Your task to perform on an android device: toggle show notifications on the lock screen Image 0: 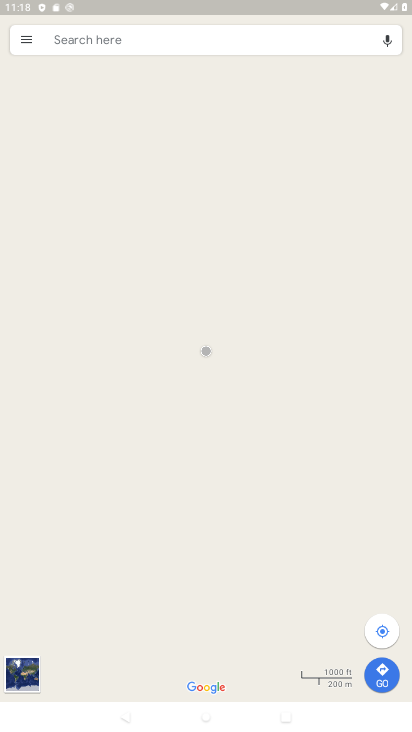
Step 0: press home button
Your task to perform on an android device: toggle show notifications on the lock screen Image 1: 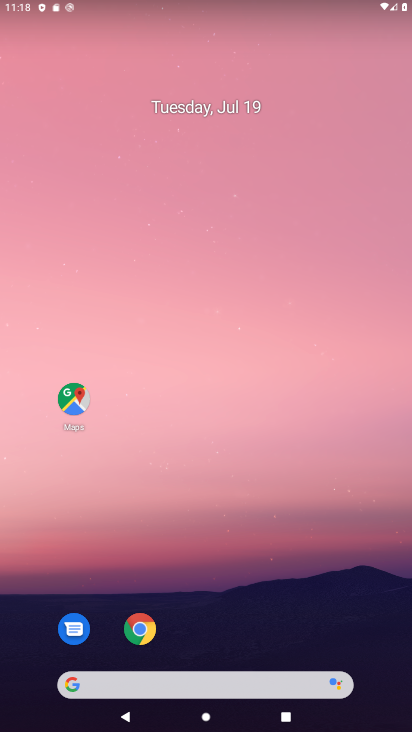
Step 1: drag from (273, 501) to (383, 29)
Your task to perform on an android device: toggle show notifications on the lock screen Image 2: 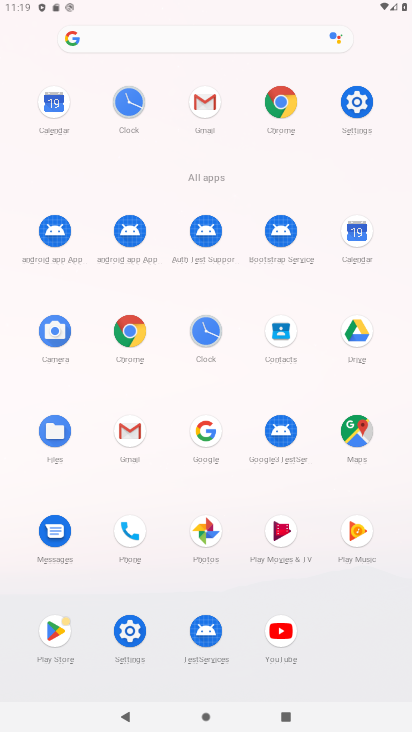
Step 2: click (371, 203)
Your task to perform on an android device: toggle show notifications on the lock screen Image 3: 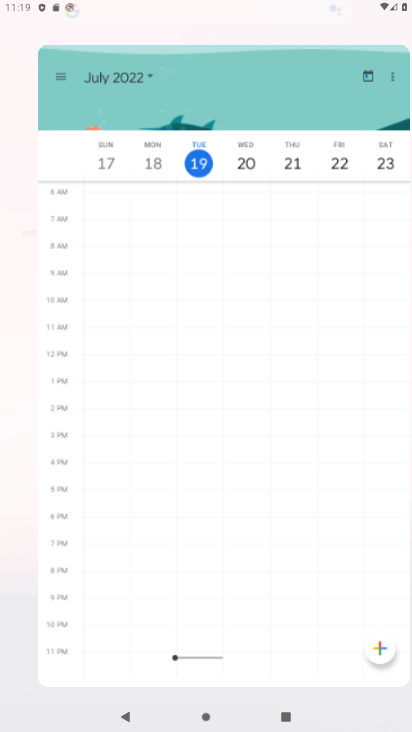
Step 3: click (361, 106)
Your task to perform on an android device: toggle show notifications on the lock screen Image 4: 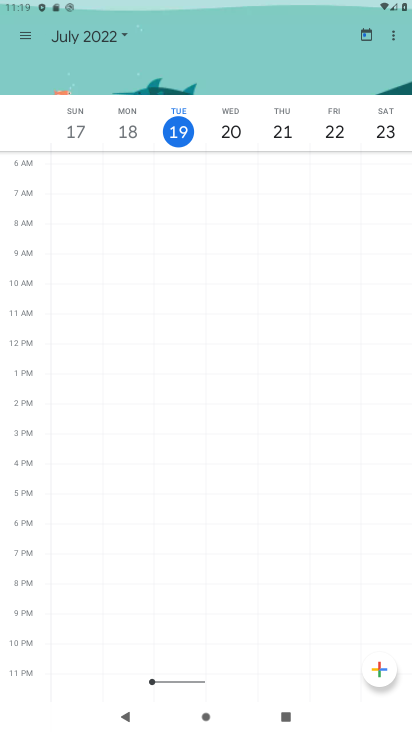
Step 4: press home button
Your task to perform on an android device: toggle show notifications on the lock screen Image 5: 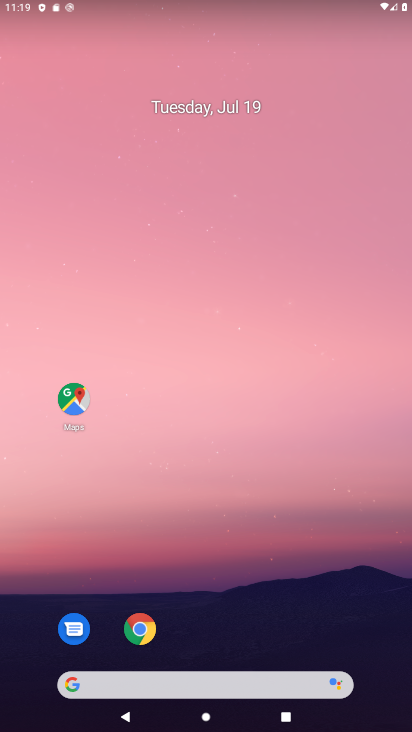
Step 5: drag from (238, 522) to (253, 35)
Your task to perform on an android device: toggle show notifications on the lock screen Image 6: 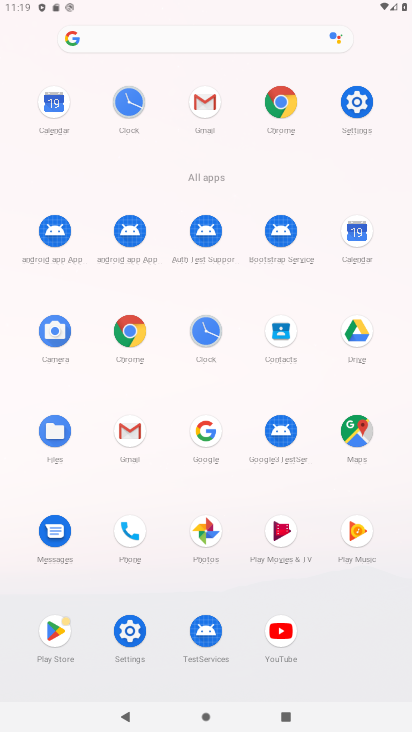
Step 6: click (354, 109)
Your task to perform on an android device: toggle show notifications on the lock screen Image 7: 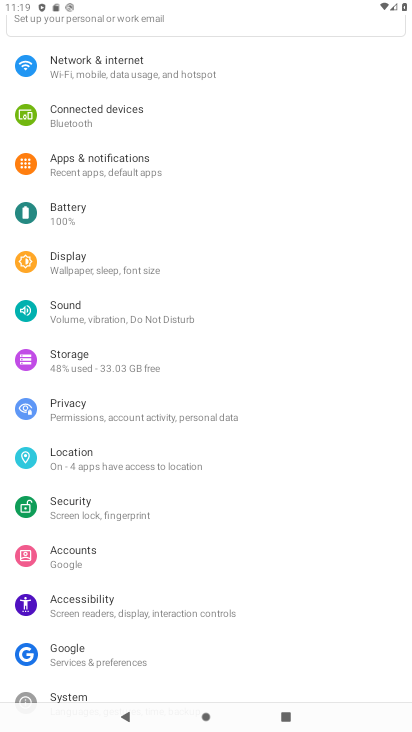
Step 7: click (115, 157)
Your task to perform on an android device: toggle show notifications on the lock screen Image 8: 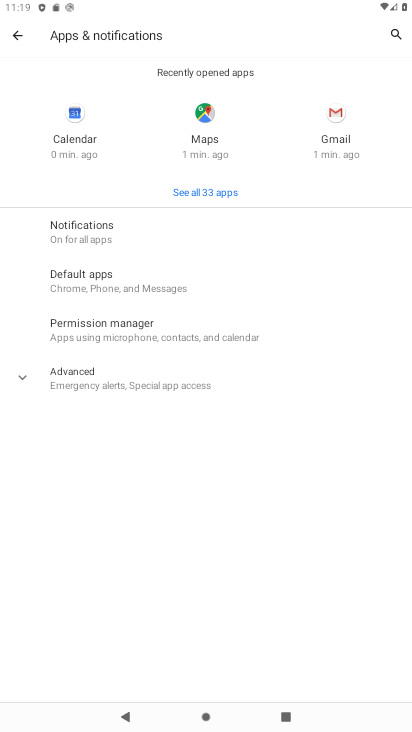
Step 8: click (96, 223)
Your task to perform on an android device: toggle show notifications on the lock screen Image 9: 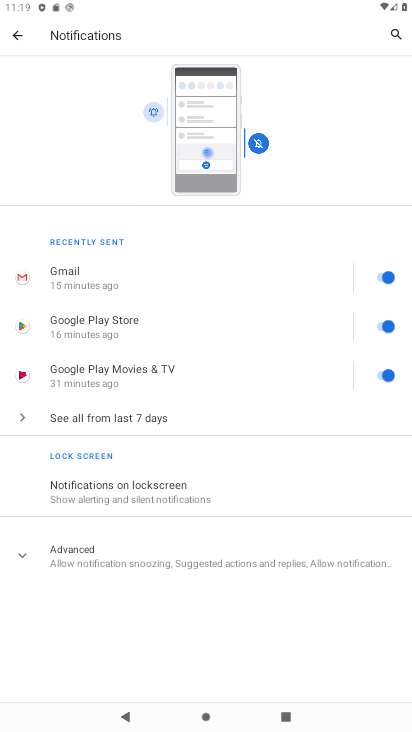
Step 9: click (143, 472)
Your task to perform on an android device: toggle show notifications on the lock screen Image 10: 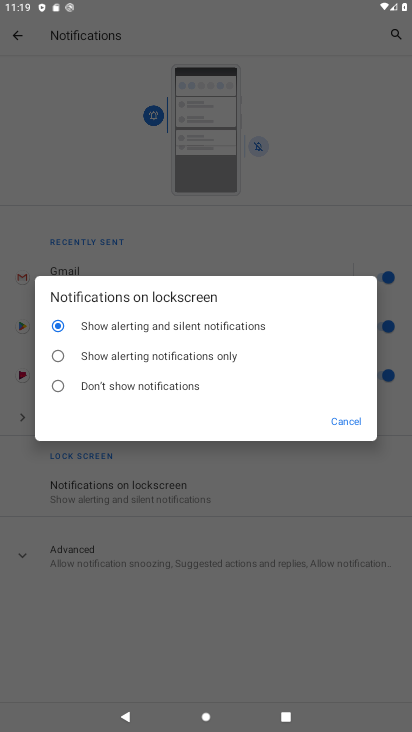
Step 10: click (221, 348)
Your task to perform on an android device: toggle show notifications on the lock screen Image 11: 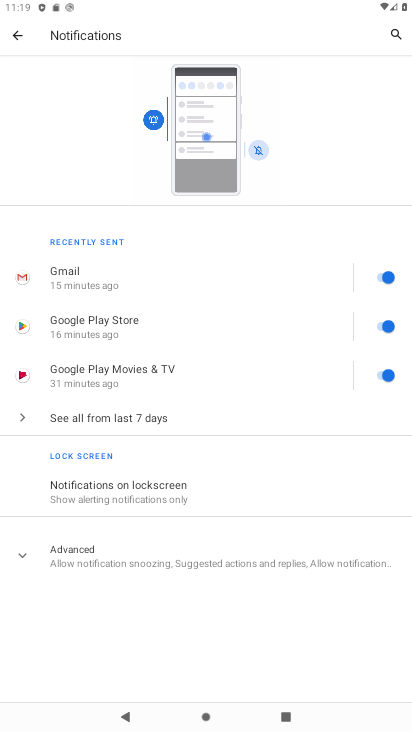
Step 11: task complete